Your task to perform on an android device: change alarm snooze length Image 0: 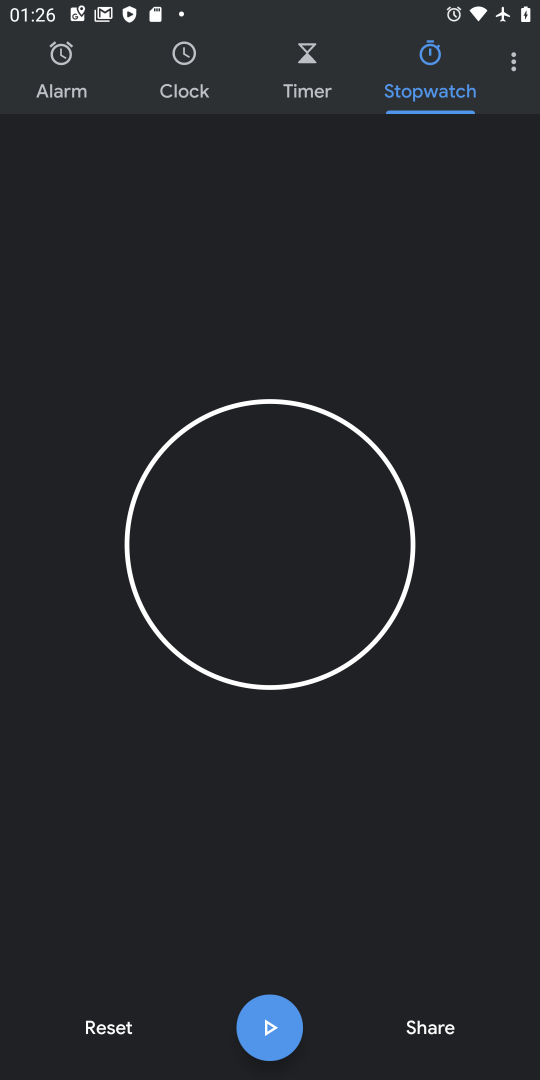
Step 0: press home button
Your task to perform on an android device: change alarm snooze length Image 1: 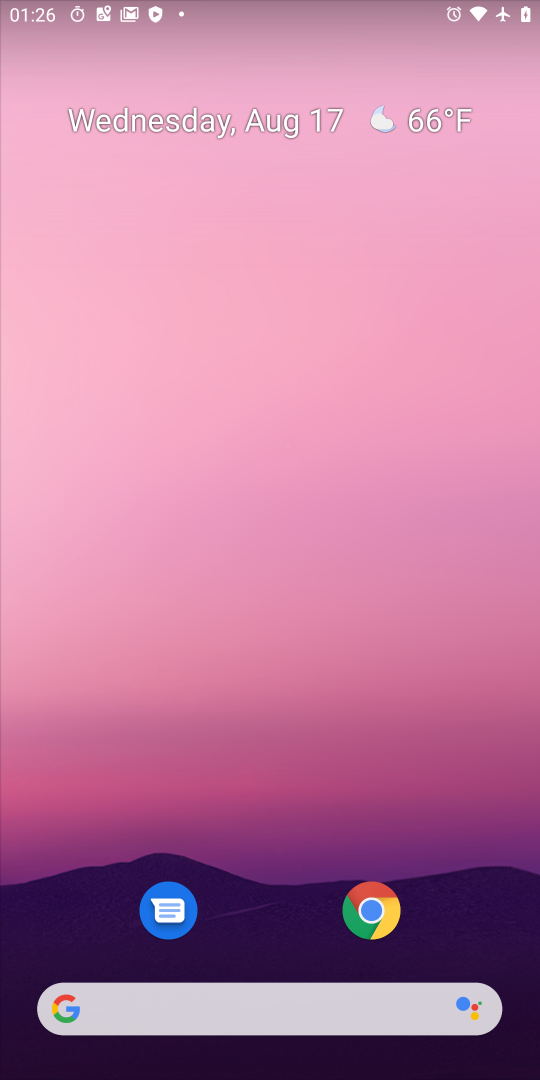
Step 1: drag from (256, 749) to (288, 216)
Your task to perform on an android device: change alarm snooze length Image 2: 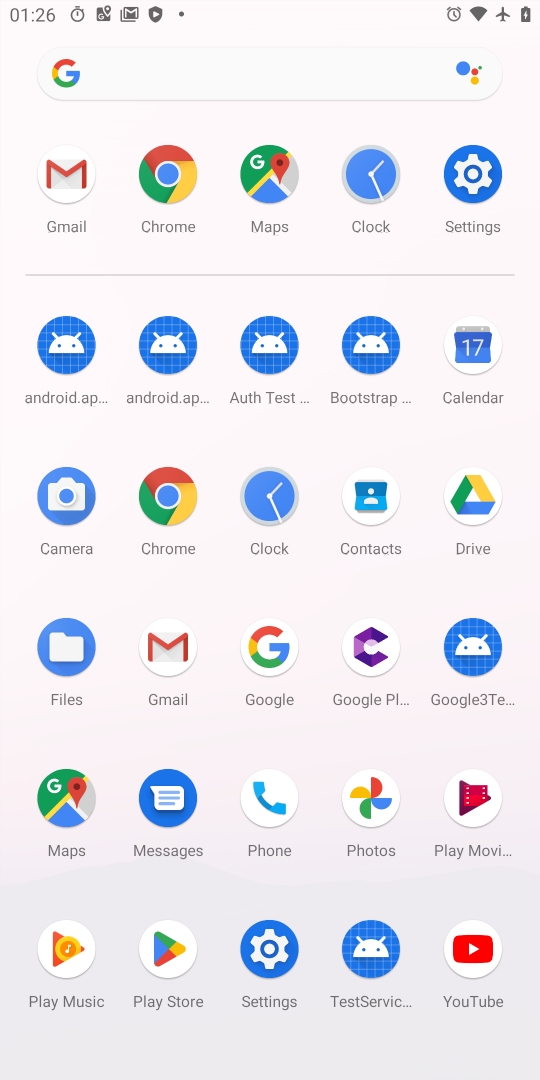
Step 2: click (271, 500)
Your task to perform on an android device: change alarm snooze length Image 3: 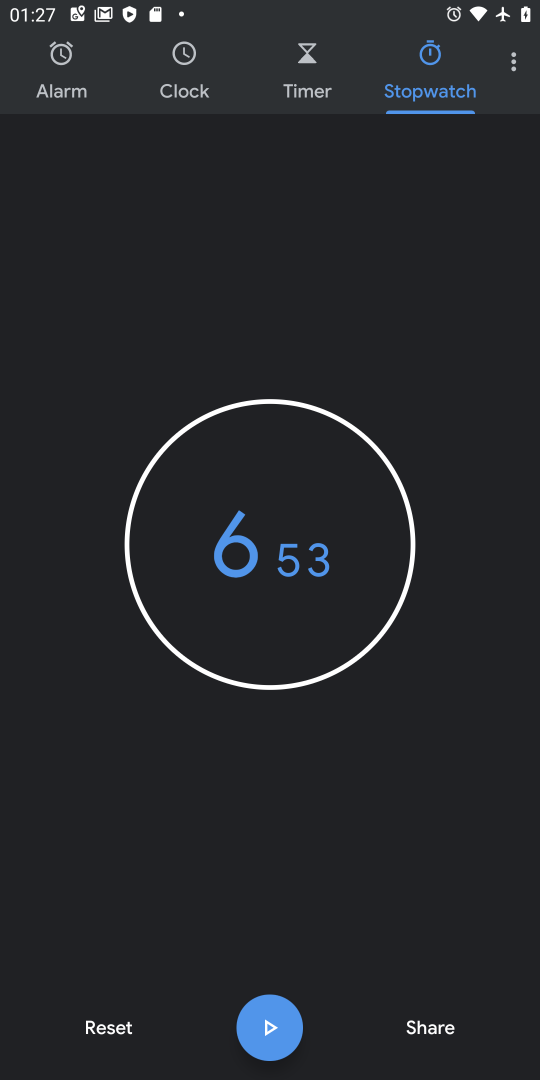
Step 3: click (507, 64)
Your task to perform on an android device: change alarm snooze length Image 4: 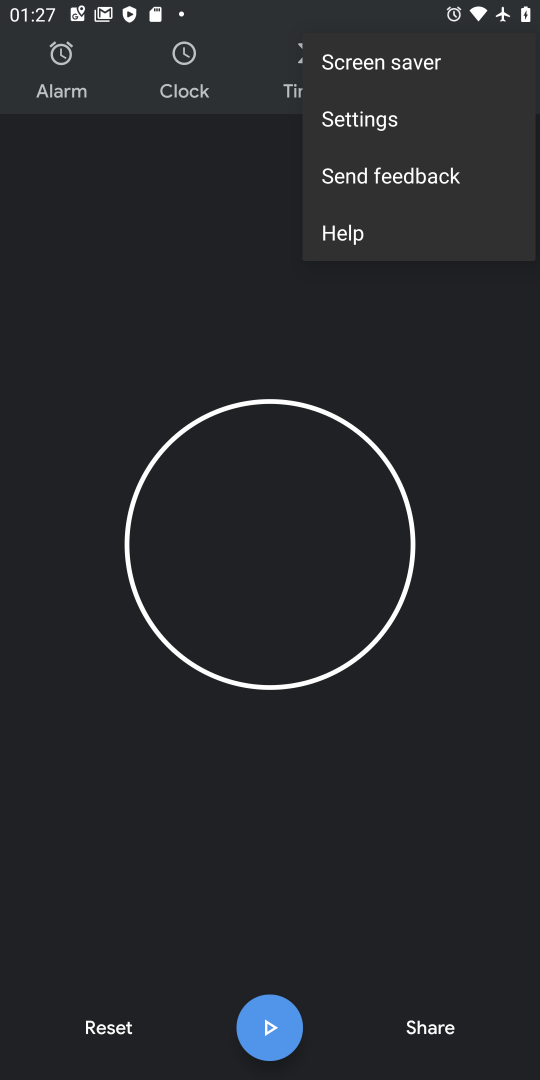
Step 4: click (361, 123)
Your task to perform on an android device: change alarm snooze length Image 5: 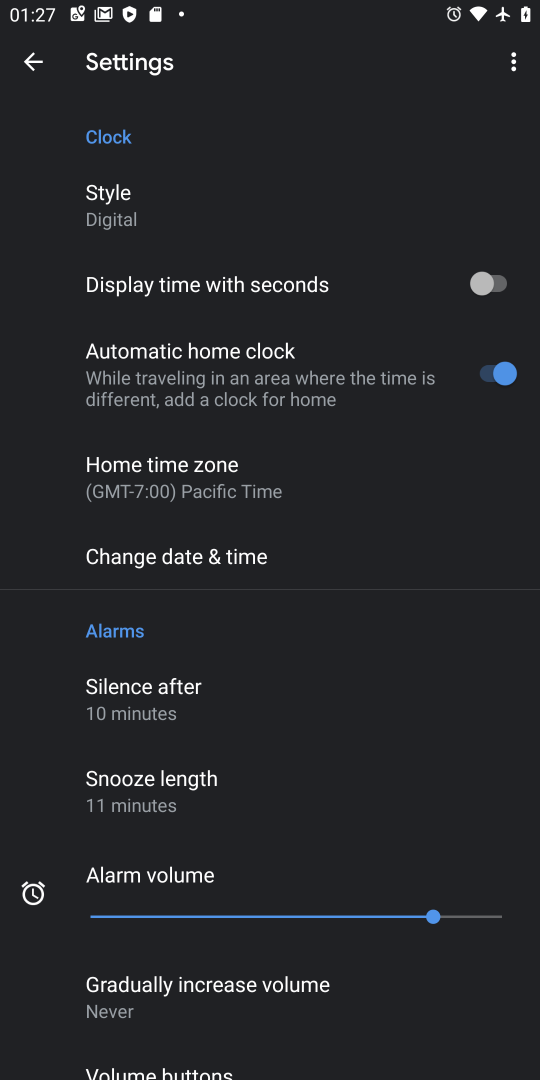
Step 5: drag from (280, 836) to (372, 297)
Your task to perform on an android device: change alarm snooze length Image 6: 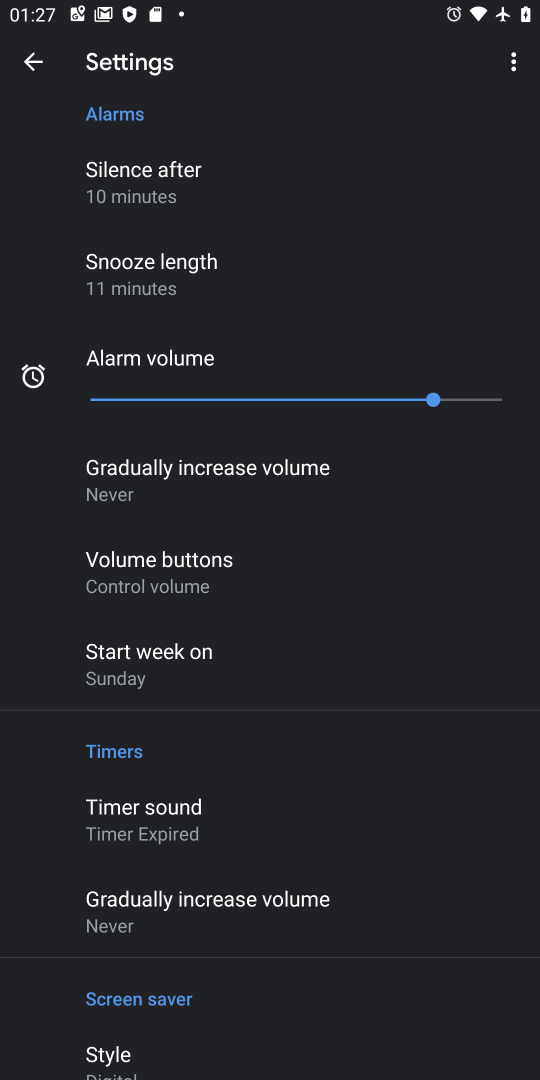
Step 6: click (112, 272)
Your task to perform on an android device: change alarm snooze length Image 7: 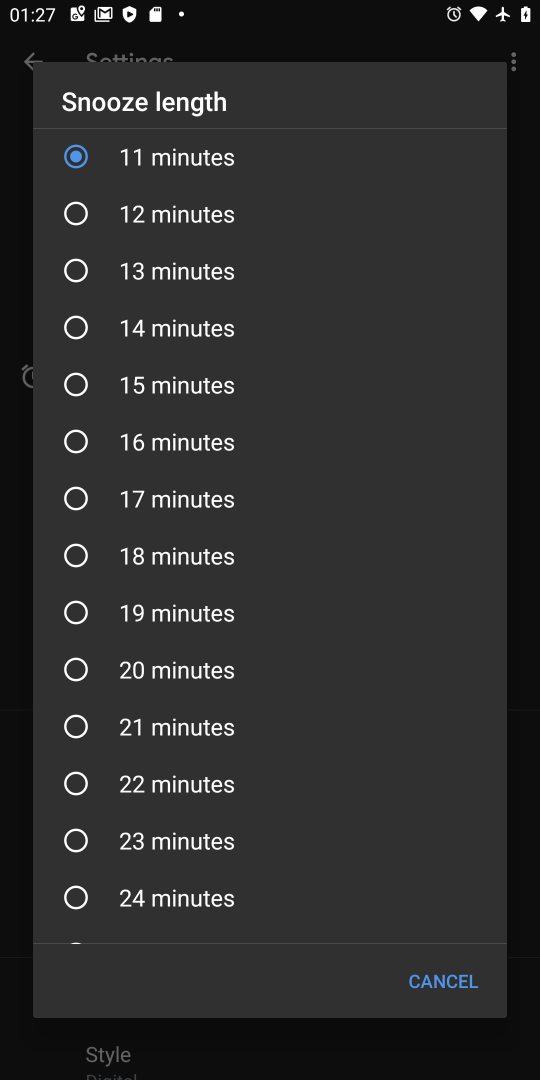
Step 7: click (203, 223)
Your task to perform on an android device: change alarm snooze length Image 8: 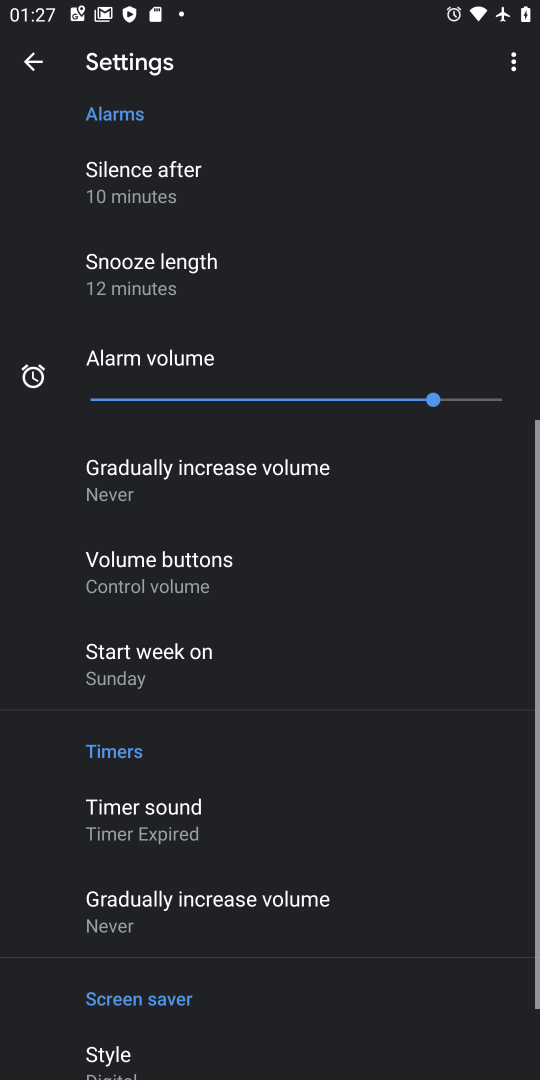
Step 8: task complete